Your task to perform on an android device: create a new album in the google photos Image 0: 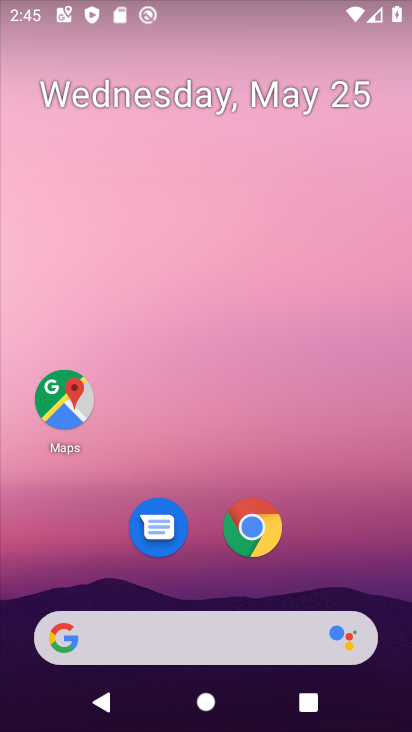
Step 0: drag from (207, 476) to (253, 129)
Your task to perform on an android device: create a new album in the google photos Image 1: 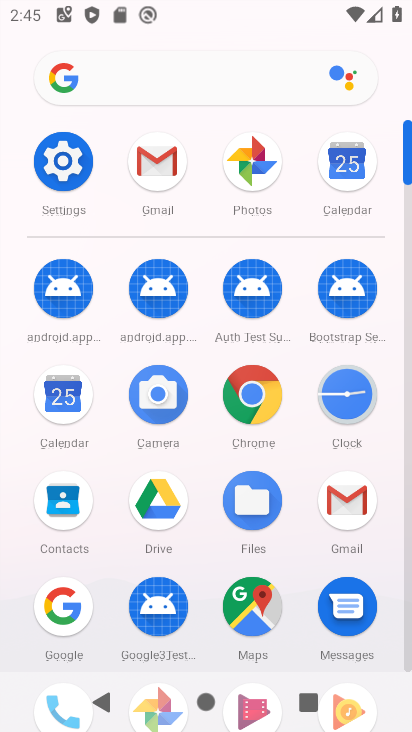
Step 1: drag from (136, 590) to (183, 188)
Your task to perform on an android device: create a new album in the google photos Image 2: 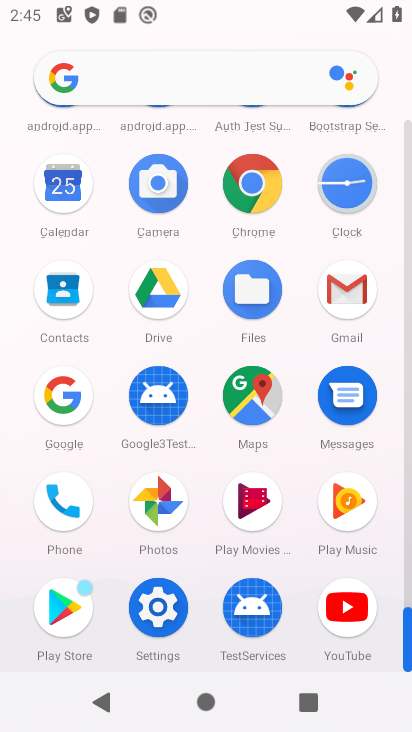
Step 2: click (151, 500)
Your task to perform on an android device: create a new album in the google photos Image 3: 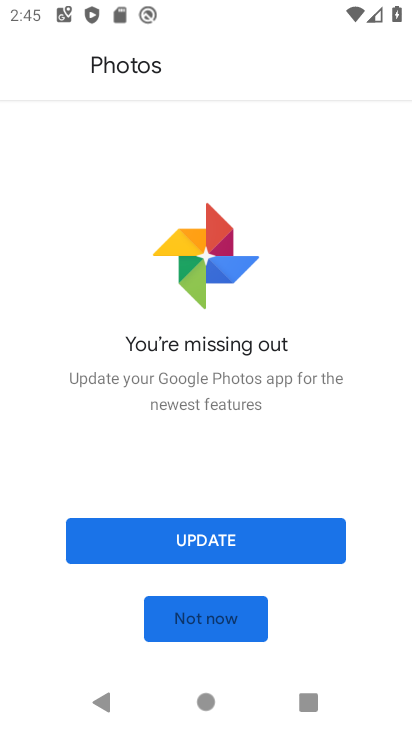
Step 3: click (222, 625)
Your task to perform on an android device: create a new album in the google photos Image 4: 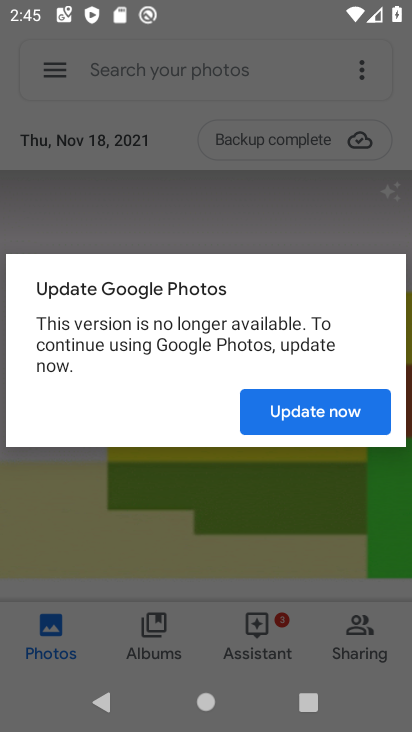
Step 4: click (304, 428)
Your task to perform on an android device: create a new album in the google photos Image 5: 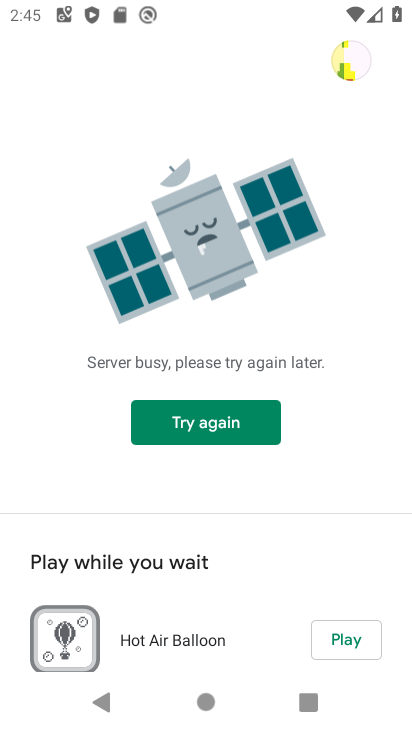
Step 5: click (239, 434)
Your task to perform on an android device: create a new album in the google photos Image 6: 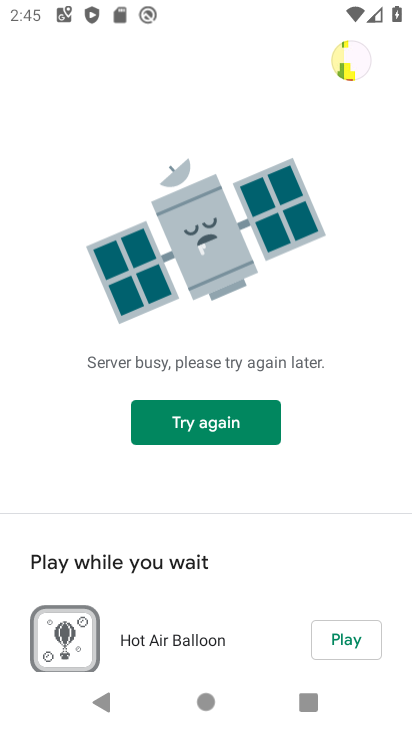
Step 6: press back button
Your task to perform on an android device: create a new album in the google photos Image 7: 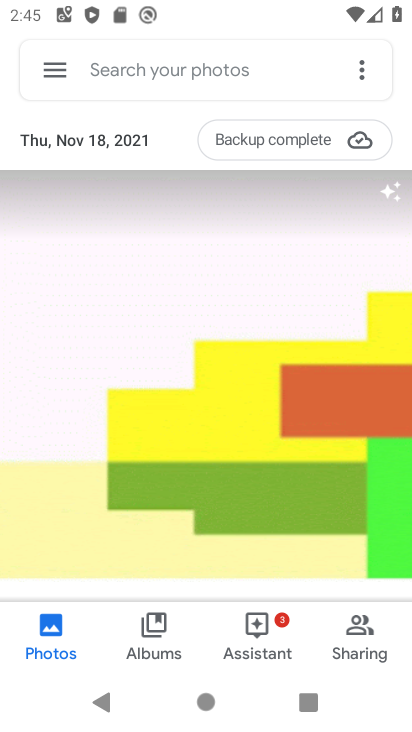
Step 7: click (359, 64)
Your task to perform on an android device: create a new album in the google photos Image 8: 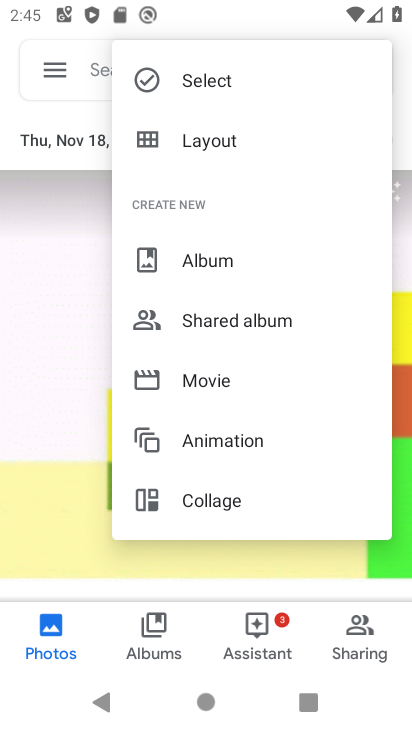
Step 8: click (193, 251)
Your task to perform on an android device: create a new album in the google photos Image 9: 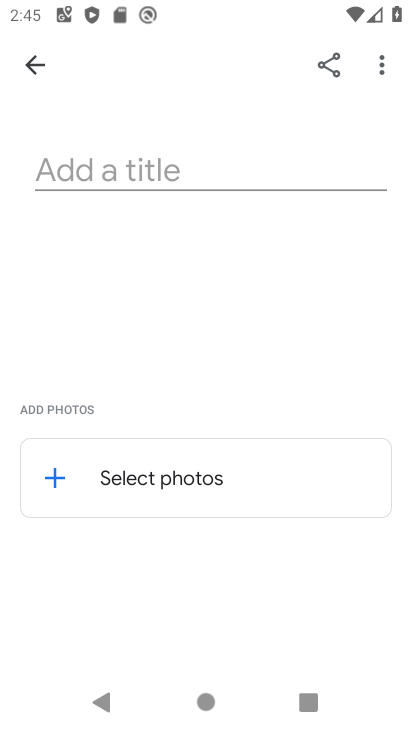
Step 9: click (144, 163)
Your task to perform on an android device: create a new album in the google photos Image 10: 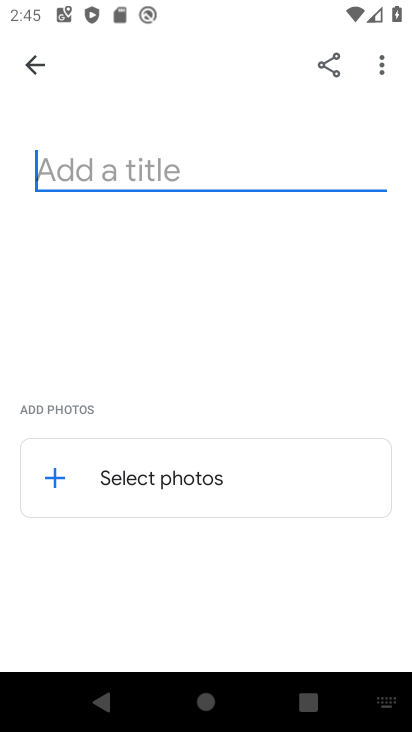
Step 10: type "hbhjb"
Your task to perform on an android device: create a new album in the google photos Image 11: 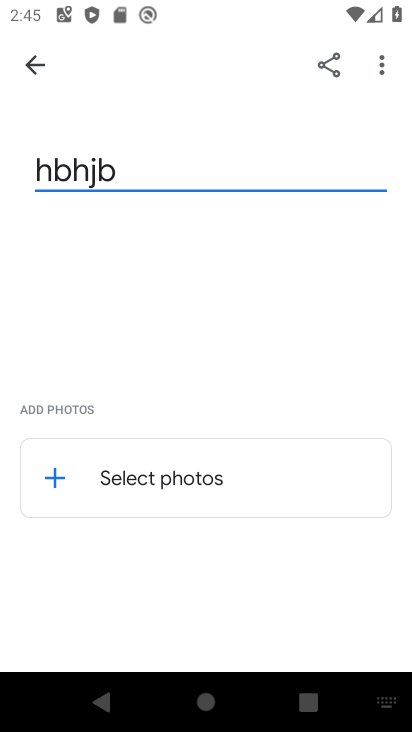
Step 11: click (116, 484)
Your task to perform on an android device: create a new album in the google photos Image 12: 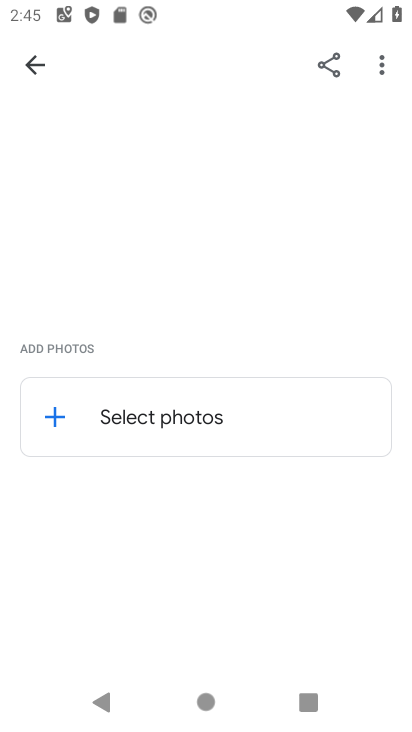
Step 12: click (142, 409)
Your task to perform on an android device: create a new album in the google photos Image 13: 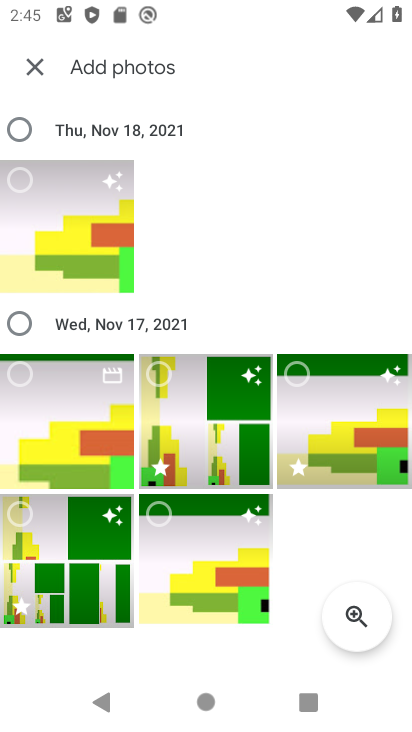
Step 13: click (12, 122)
Your task to perform on an android device: create a new album in the google photos Image 14: 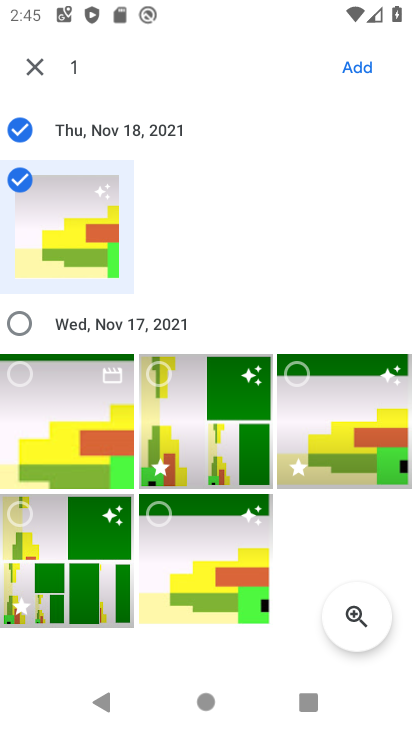
Step 14: click (16, 324)
Your task to perform on an android device: create a new album in the google photos Image 15: 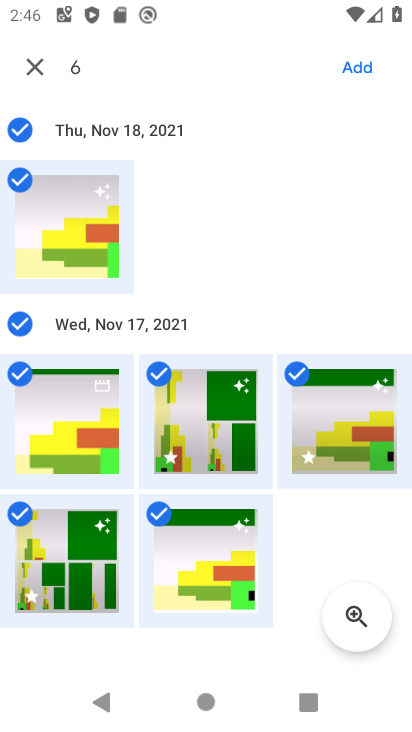
Step 15: click (352, 67)
Your task to perform on an android device: create a new album in the google photos Image 16: 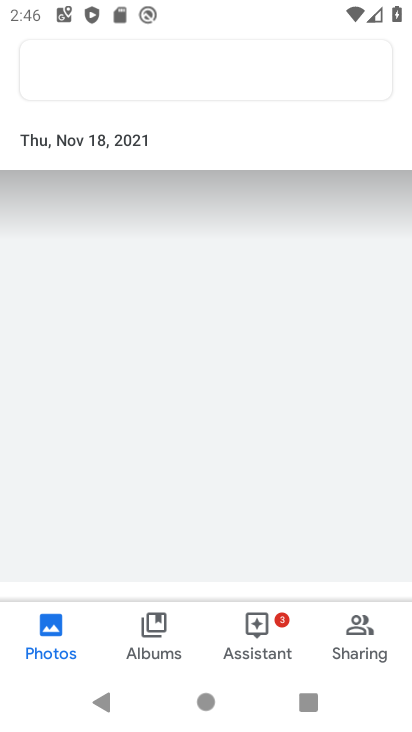
Step 16: task complete